Your task to perform on an android device: toggle javascript in the chrome app Image 0: 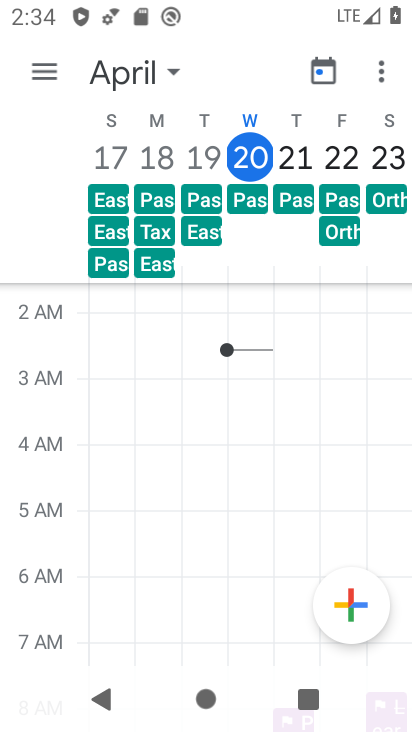
Step 0: press home button
Your task to perform on an android device: toggle javascript in the chrome app Image 1: 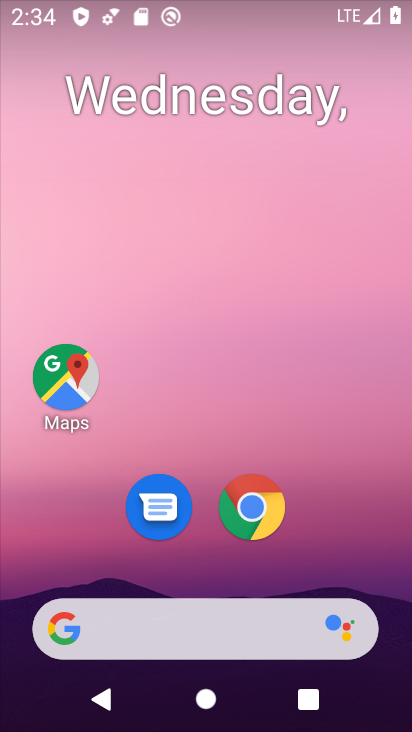
Step 1: click (259, 504)
Your task to perform on an android device: toggle javascript in the chrome app Image 2: 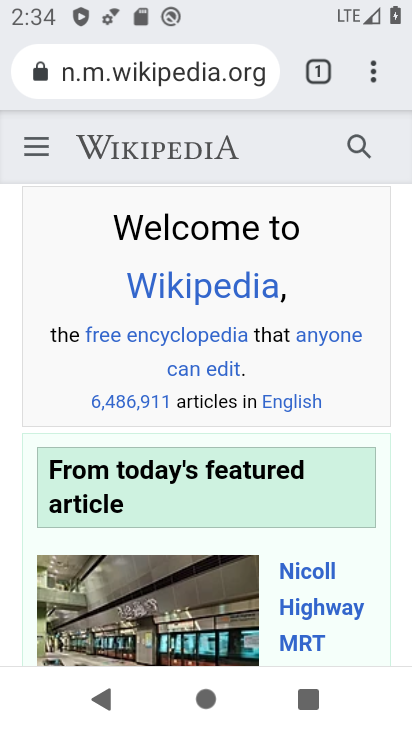
Step 2: click (369, 71)
Your task to perform on an android device: toggle javascript in the chrome app Image 3: 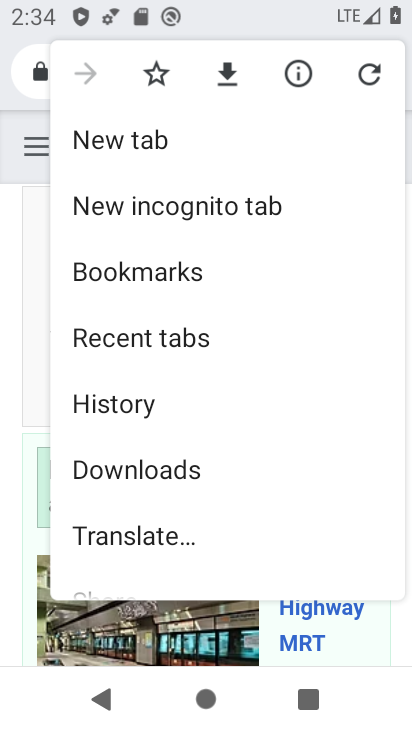
Step 3: drag from (248, 494) to (248, 153)
Your task to perform on an android device: toggle javascript in the chrome app Image 4: 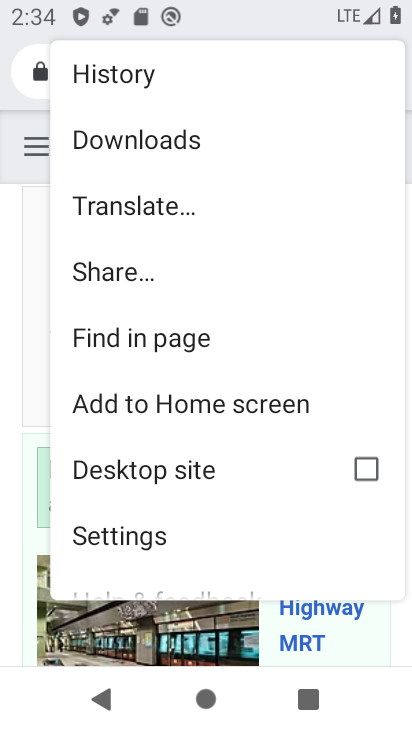
Step 4: click (163, 534)
Your task to perform on an android device: toggle javascript in the chrome app Image 5: 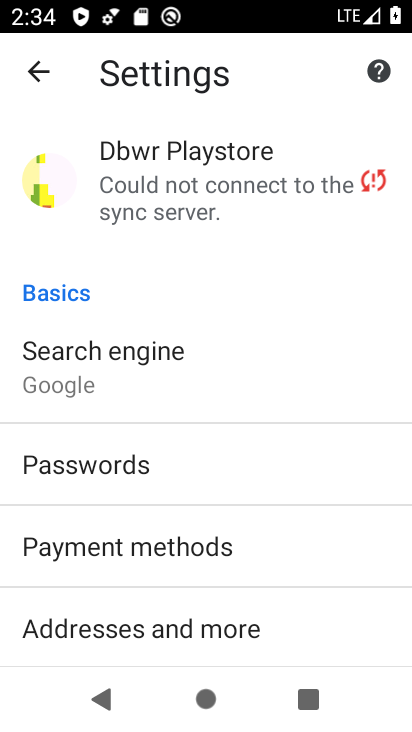
Step 5: drag from (278, 580) to (285, 177)
Your task to perform on an android device: toggle javascript in the chrome app Image 6: 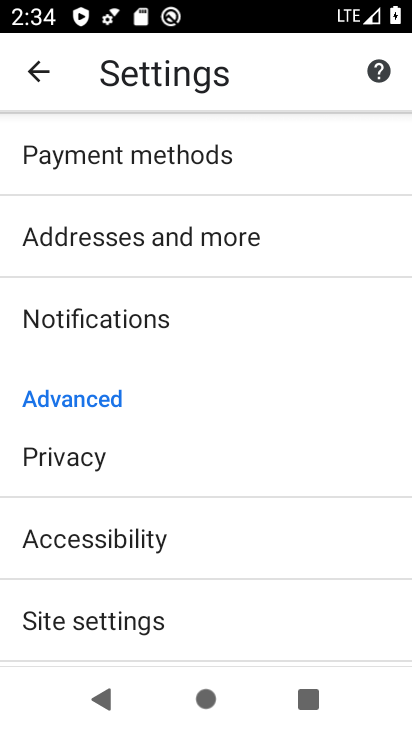
Step 6: drag from (269, 597) to (269, 279)
Your task to perform on an android device: toggle javascript in the chrome app Image 7: 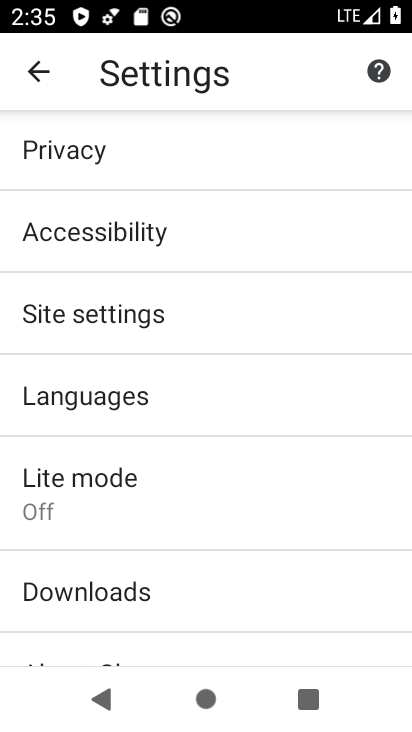
Step 7: click (123, 314)
Your task to perform on an android device: toggle javascript in the chrome app Image 8: 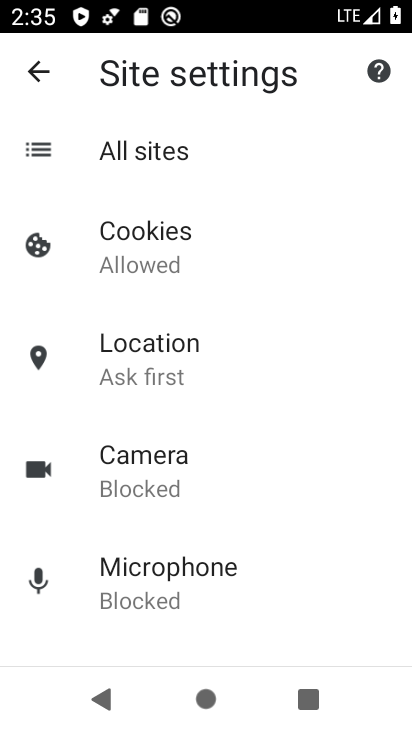
Step 8: drag from (262, 542) to (314, 160)
Your task to perform on an android device: toggle javascript in the chrome app Image 9: 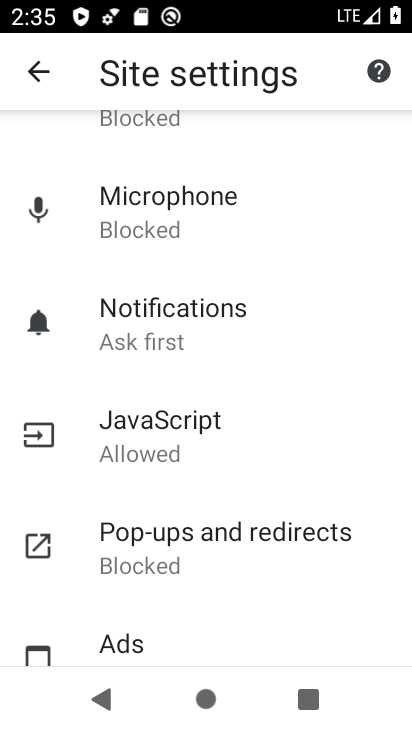
Step 9: click (183, 430)
Your task to perform on an android device: toggle javascript in the chrome app Image 10: 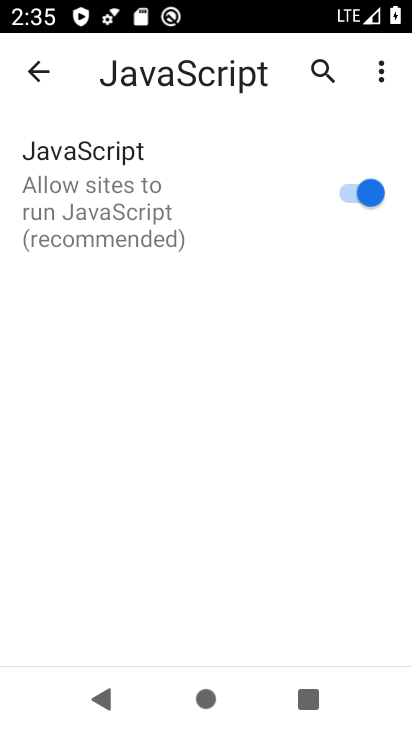
Step 10: click (344, 195)
Your task to perform on an android device: toggle javascript in the chrome app Image 11: 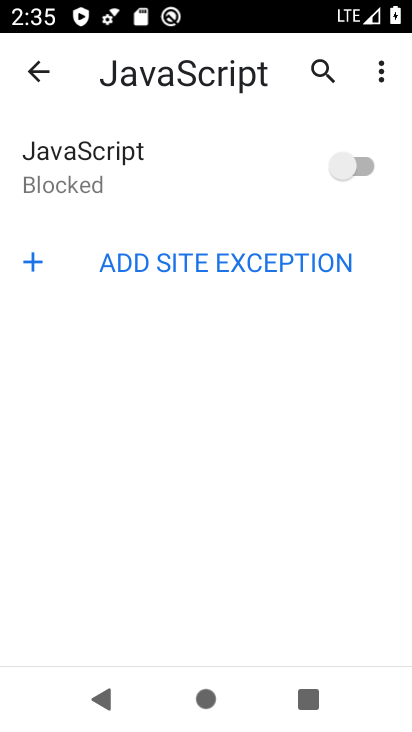
Step 11: task complete